Your task to perform on an android device: Go to Wikipedia Image 0: 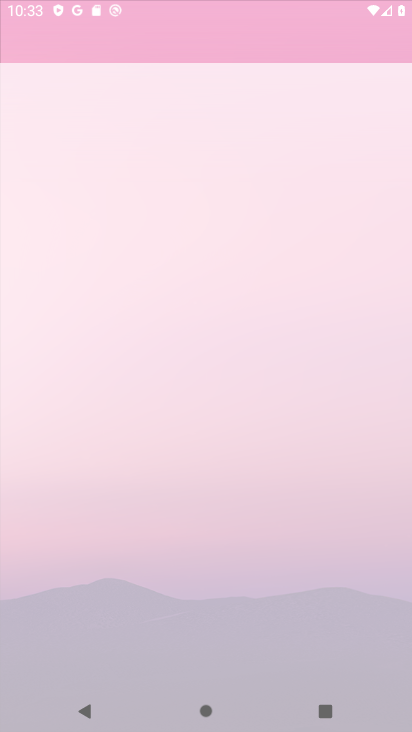
Step 0: press home button
Your task to perform on an android device: Go to Wikipedia Image 1: 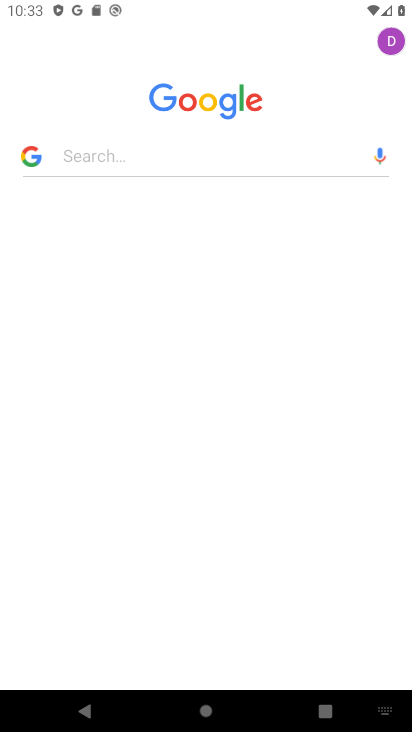
Step 1: press home button
Your task to perform on an android device: Go to Wikipedia Image 2: 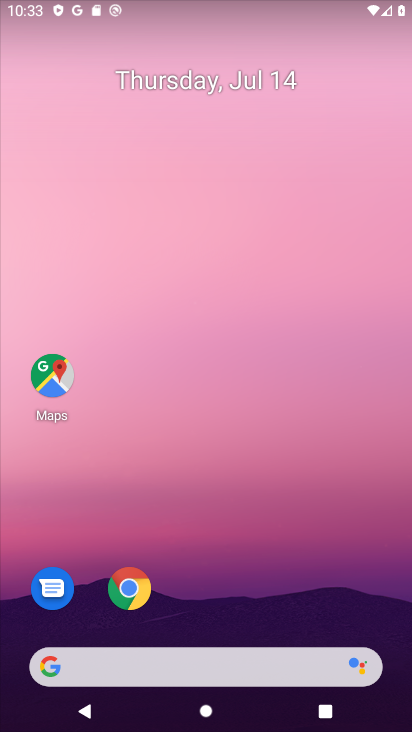
Step 2: click (105, 599)
Your task to perform on an android device: Go to Wikipedia Image 3: 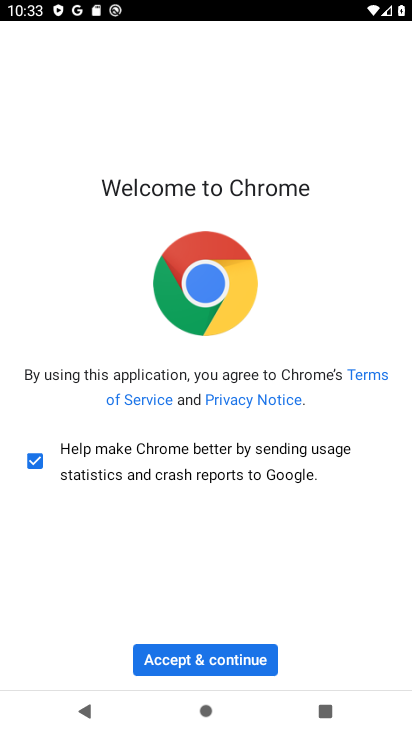
Step 3: click (201, 660)
Your task to perform on an android device: Go to Wikipedia Image 4: 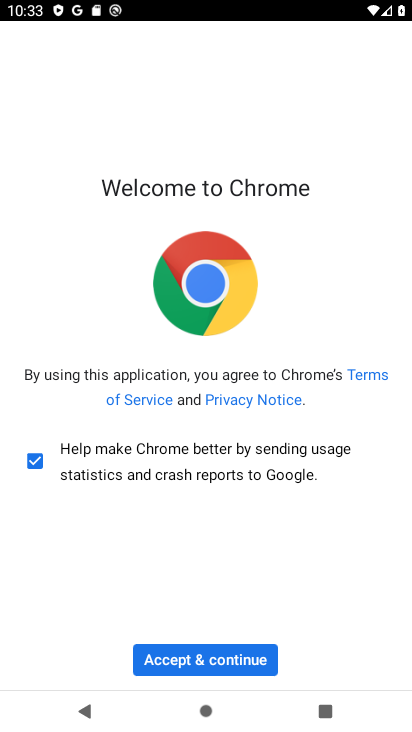
Step 4: click (201, 660)
Your task to perform on an android device: Go to Wikipedia Image 5: 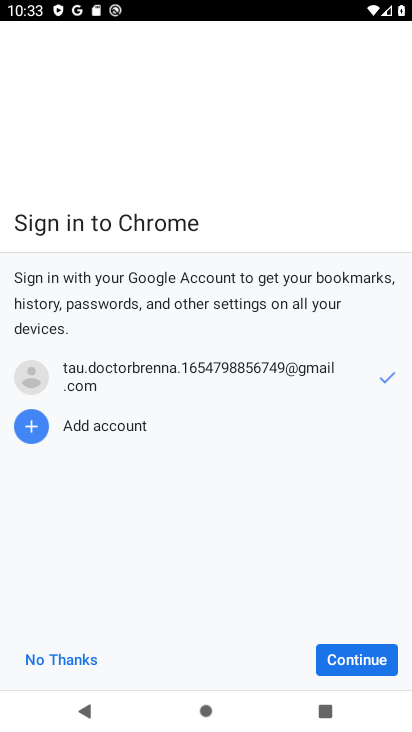
Step 5: click (323, 651)
Your task to perform on an android device: Go to Wikipedia Image 6: 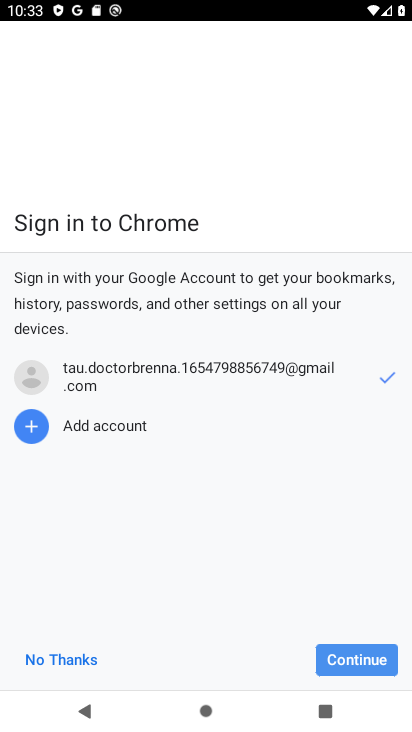
Step 6: click (323, 651)
Your task to perform on an android device: Go to Wikipedia Image 7: 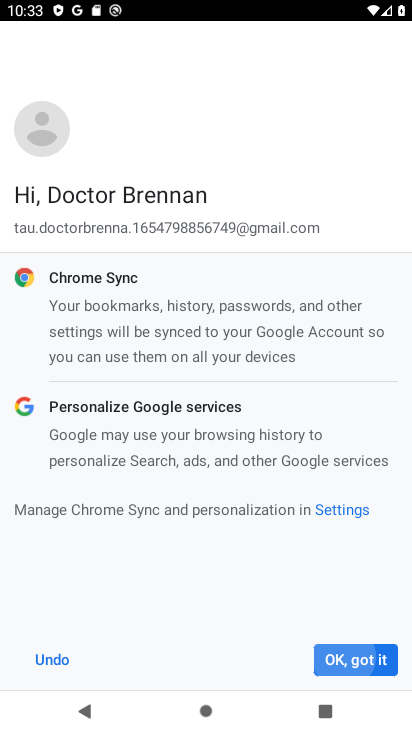
Step 7: click (323, 651)
Your task to perform on an android device: Go to Wikipedia Image 8: 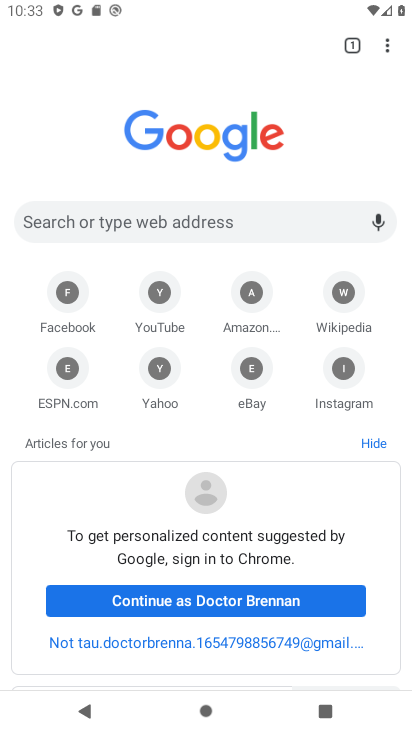
Step 8: click (110, 54)
Your task to perform on an android device: Go to Wikipedia Image 9: 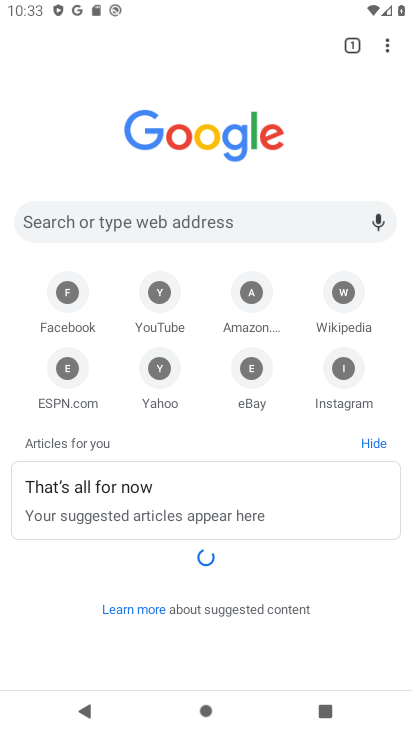
Step 9: click (153, 241)
Your task to perform on an android device: Go to Wikipedia Image 10: 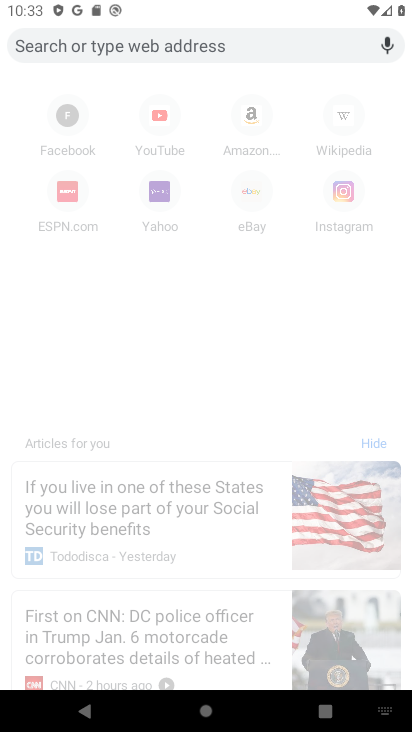
Step 10: type "Wikipedia"
Your task to perform on an android device: Go to Wikipedia Image 11: 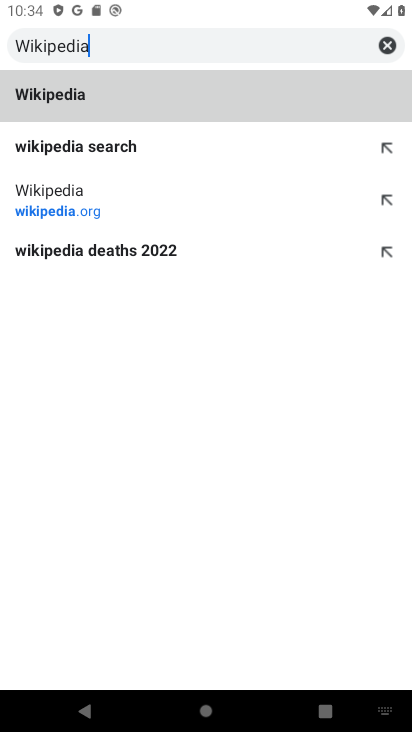
Step 11: type ""
Your task to perform on an android device: Go to Wikipedia Image 12: 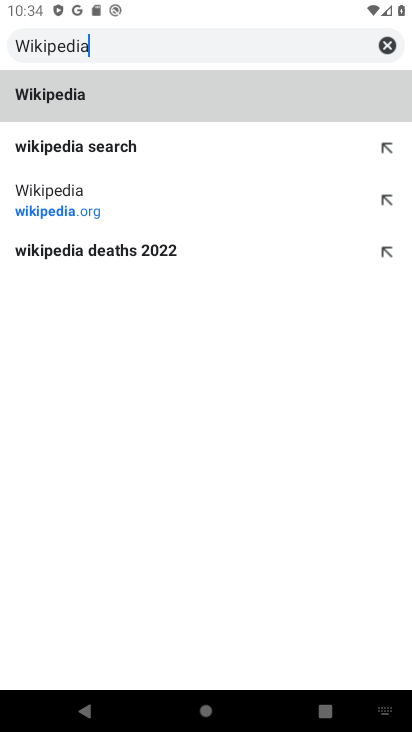
Step 12: click (130, 81)
Your task to perform on an android device: Go to Wikipedia Image 13: 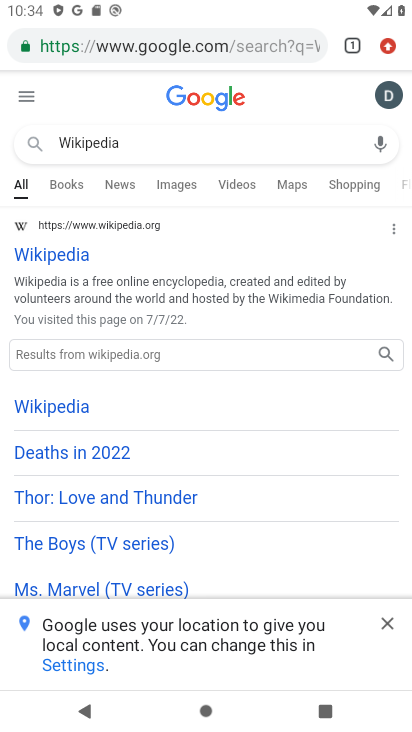
Step 13: click (67, 244)
Your task to perform on an android device: Go to Wikipedia Image 14: 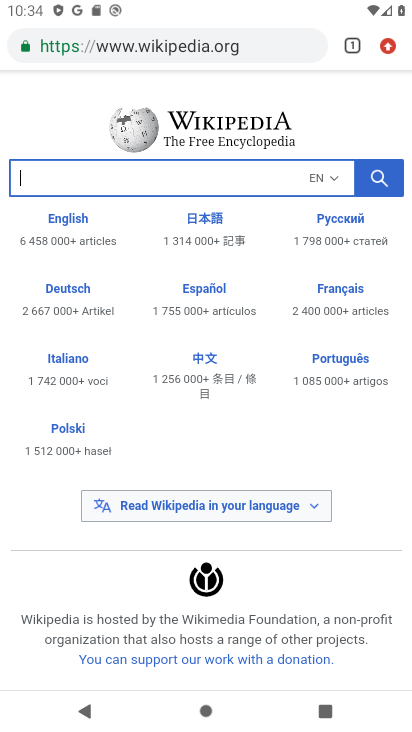
Step 14: task complete